Your task to perform on an android device: find which apps use the phone's location Image 0: 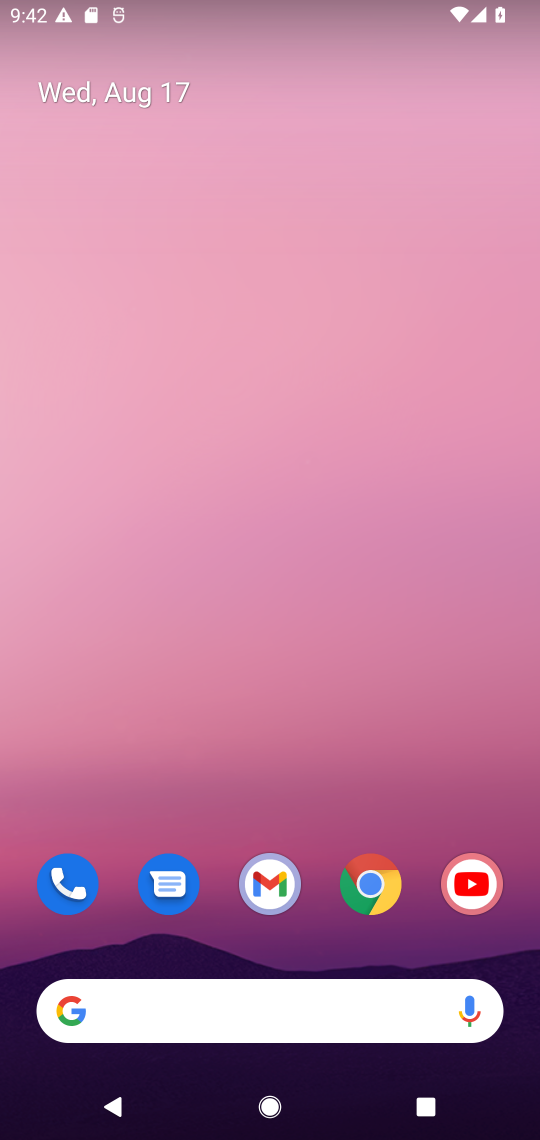
Step 0: drag from (209, 940) to (195, 2)
Your task to perform on an android device: find which apps use the phone's location Image 1: 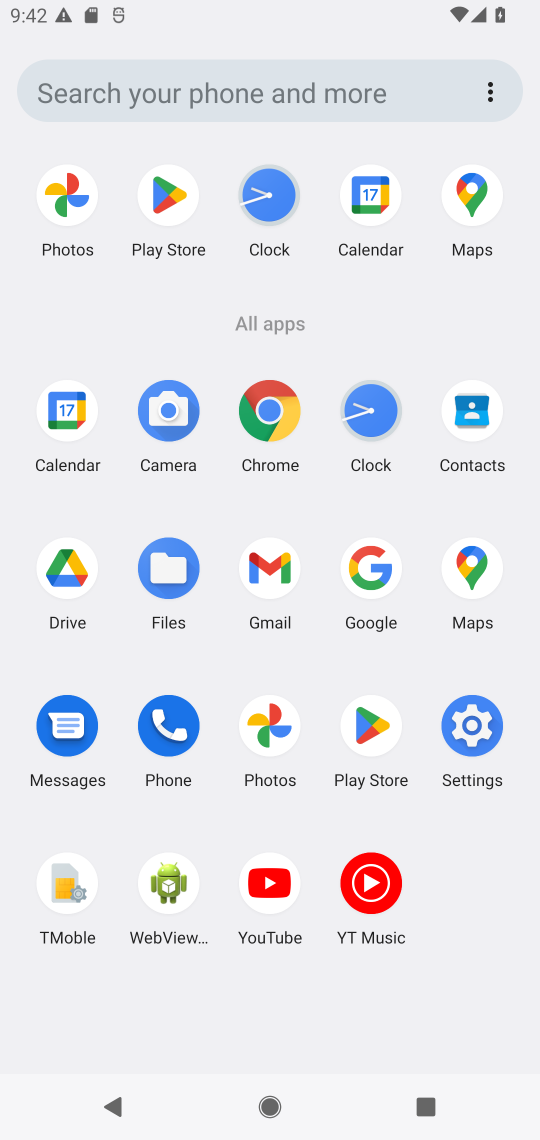
Step 1: click (484, 748)
Your task to perform on an android device: find which apps use the phone's location Image 2: 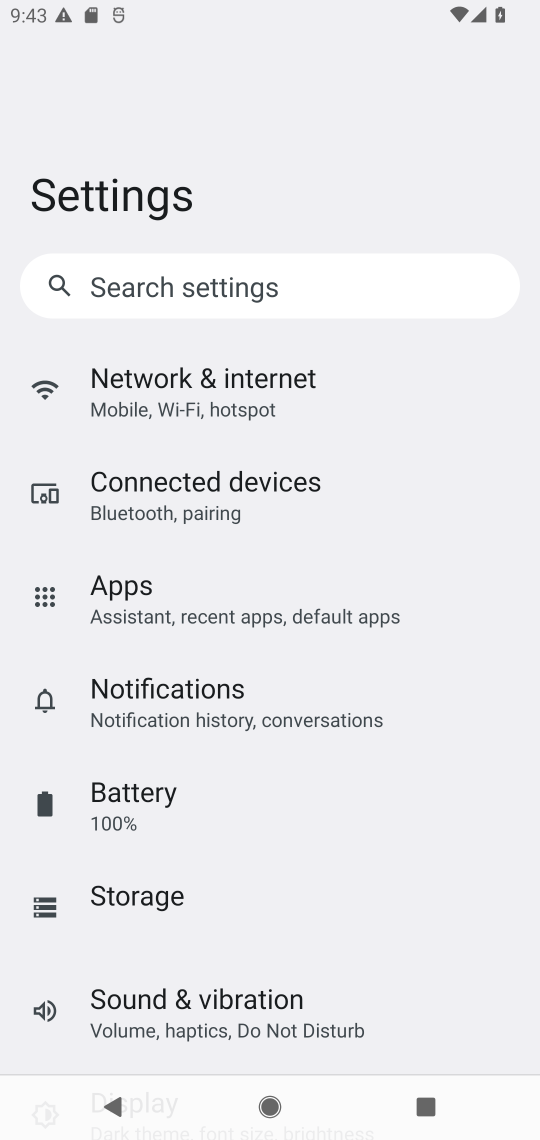
Step 2: drag from (210, 938) to (255, 562)
Your task to perform on an android device: find which apps use the phone's location Image 3: 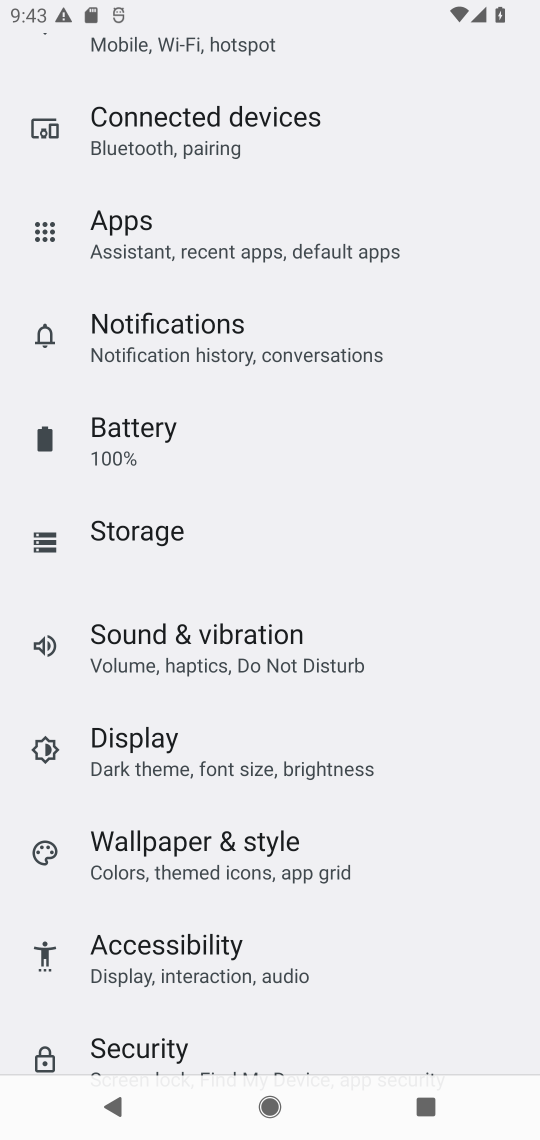
Step 3: drag from (71, 1005) to (133, 389)
Your task to perform on an android device: find which apps use the phone's location Image 4: 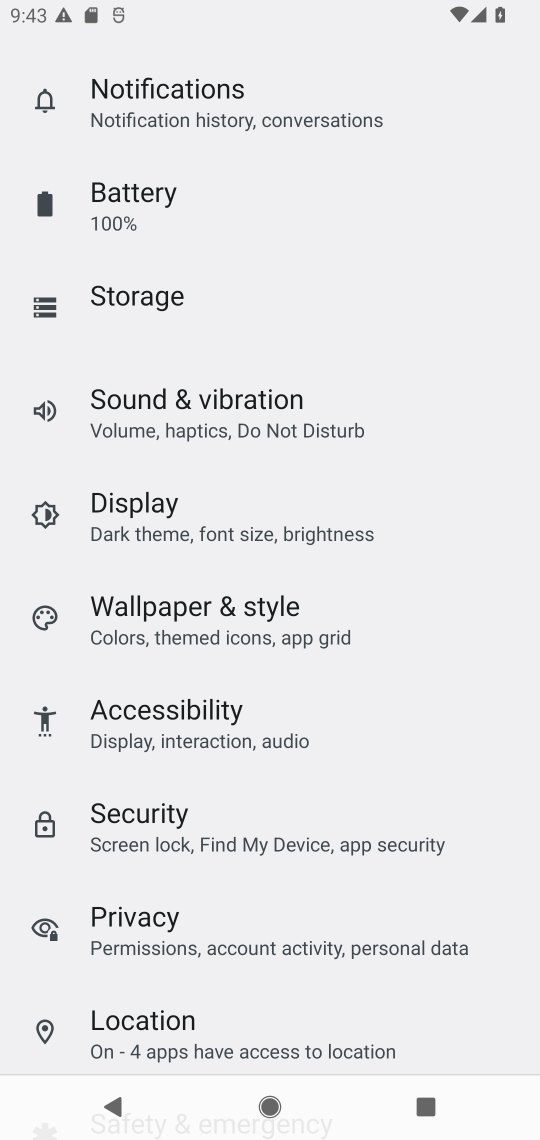
Step 4: click (217, 1010)
Your task to perform on an android device: find which apps use the phone's location Image 5: 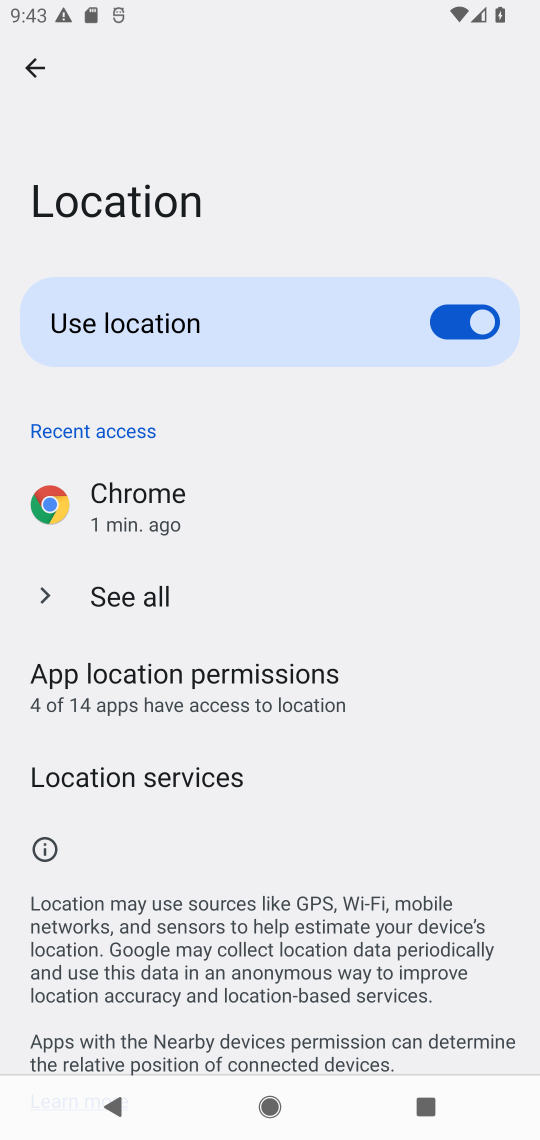
Step 5: click (97, 597)
Your task to perform on an android device: find which apps use the phone's location Image 6: 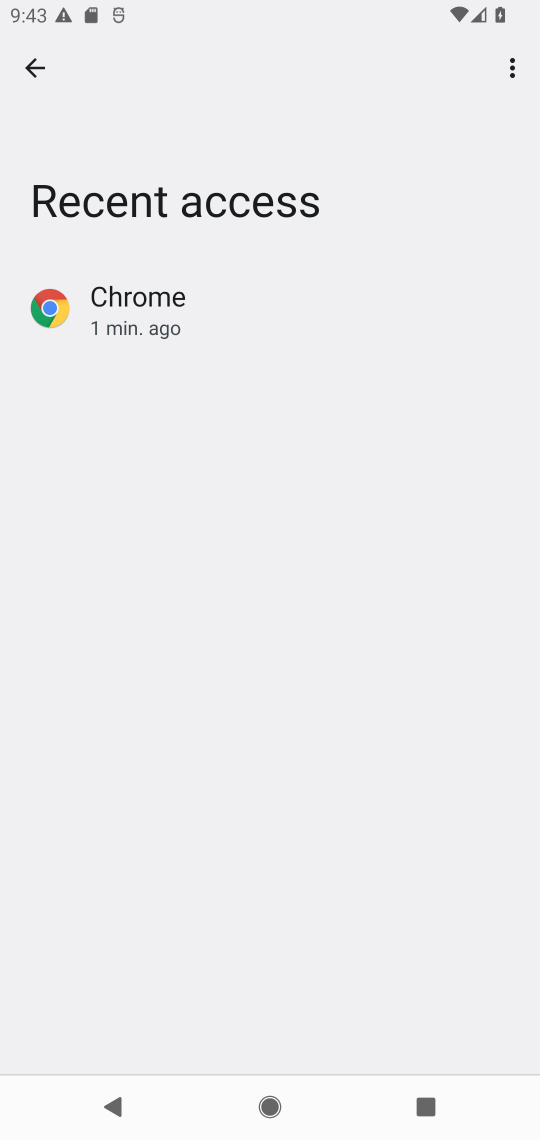
Step 6: task complete